Your task to perform on an android device: Open network settings Image 0: 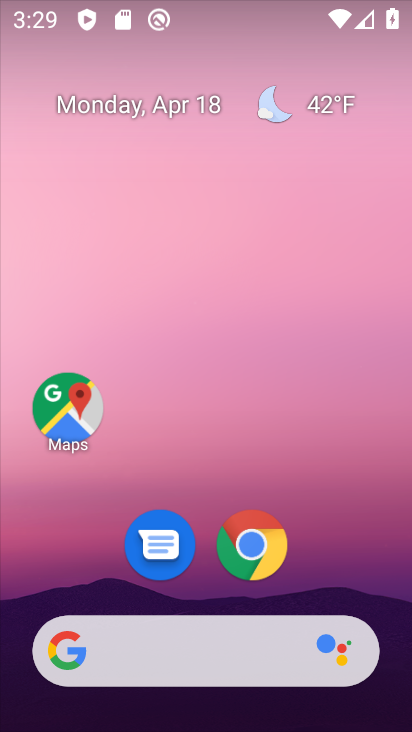
Step 0: drag from (313, 554) to (298, 69)
Your task to perform on an android device: Open network settings Image 1: 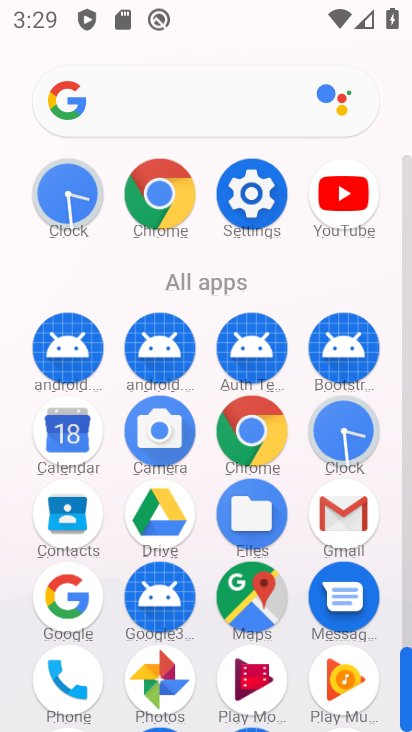
Step 1: click (257, 204)
Your task to perform on an android device: Open network settings Image 2: 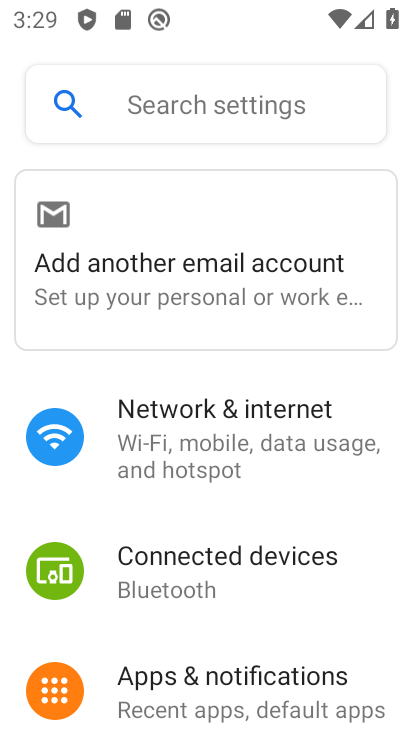
Step 2: drag from (366, 562) to (386, 329)
Your task to perform on an android device: Open network settings Image 3: 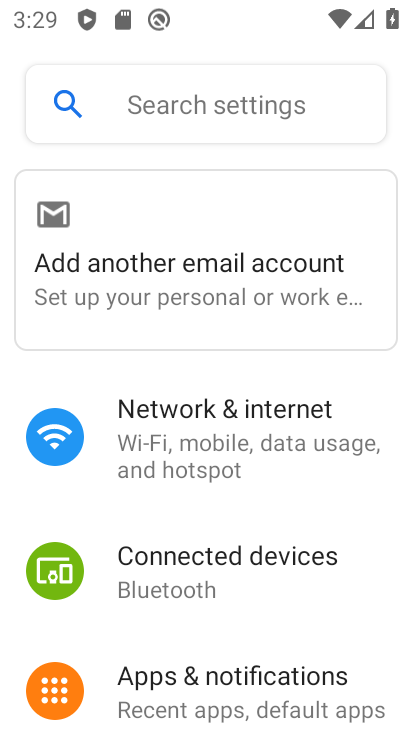
Step 3: drag from (380, 563) to (380, 357)
Your task to perform on an android device: Open network settings Image 4: 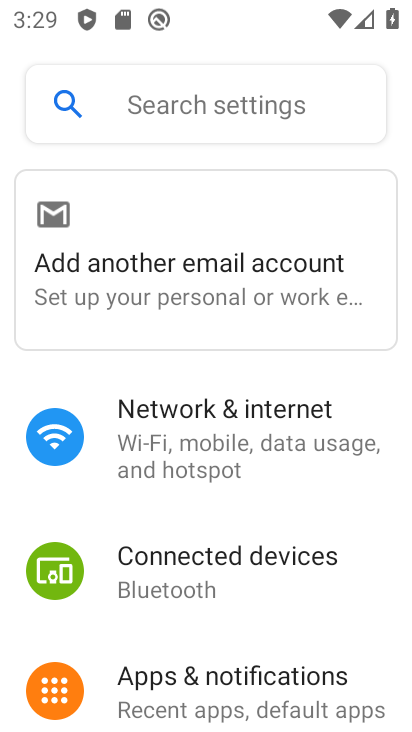
Step 4: drag from (384, 566) to (394, 389)
Your task to perform on an android device: Open network settings Image 5: 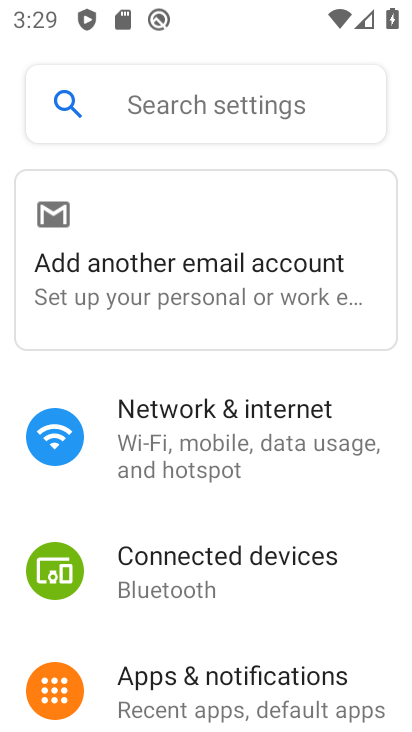
Step 5: click (286, 432)
Your task to perform on an android device: Open network settings Image 6: 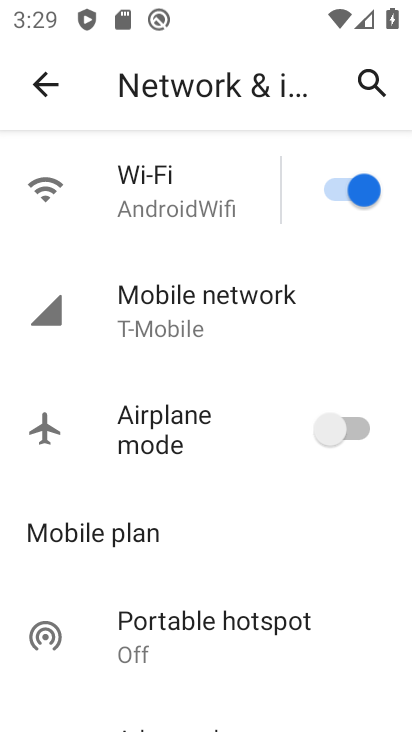
Step 6: task complete